Your task to perform on an android device: change keyboard looks Image 0: 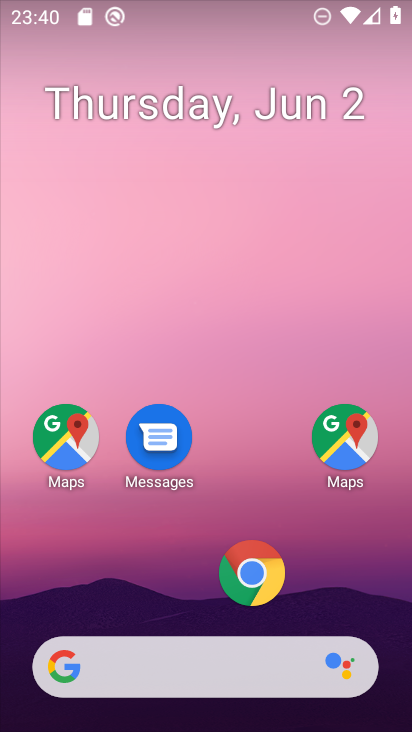
Step 0: drag from (379, 461) to (273, 20)
Your task to perform on an android device: change keyboard looks Image 1: 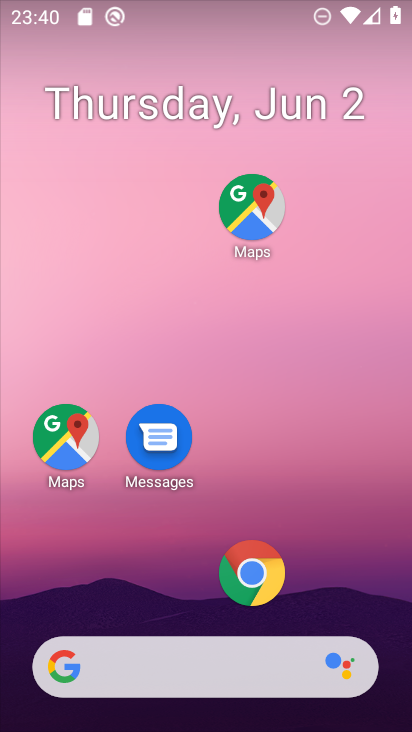
Step 1: drag from (336, 429) to (282, 85)
Your task to perform on an android device: change keyboard looks Image 2: 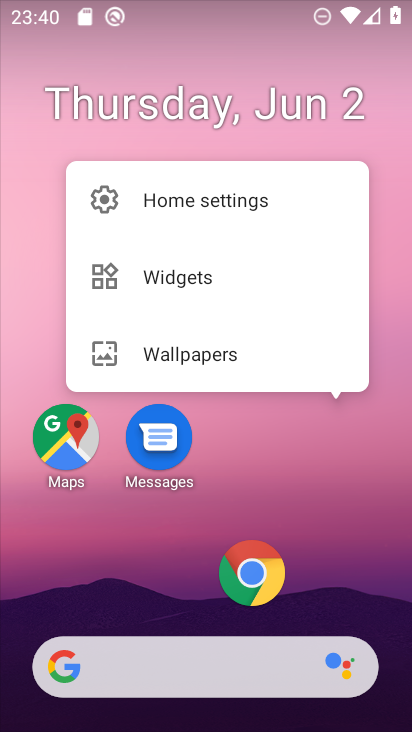
Step 2: press home button
Your task to perform on an android device: change keyboard looks Image 3: 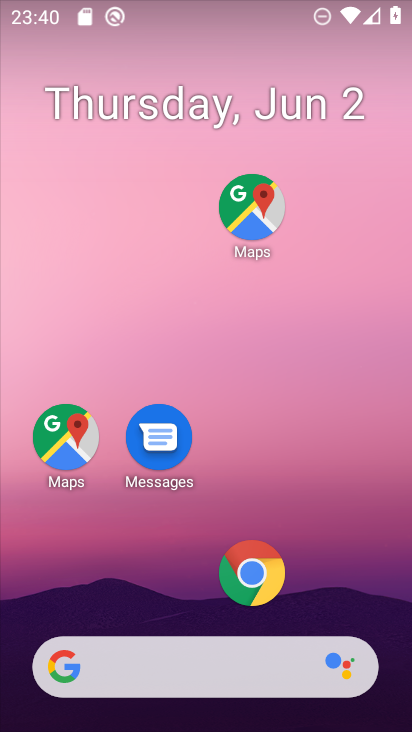
Step 3: click (312, 350)
Your task to perform on an android device: change keyboard looks Image 4: 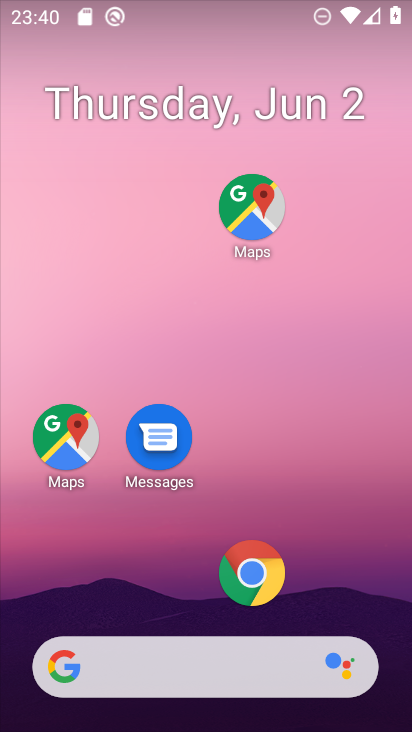
Step 4: drag from (338, 581) to (349, 171)
Your task to perform on an android device: change keyboard looks Image 5: 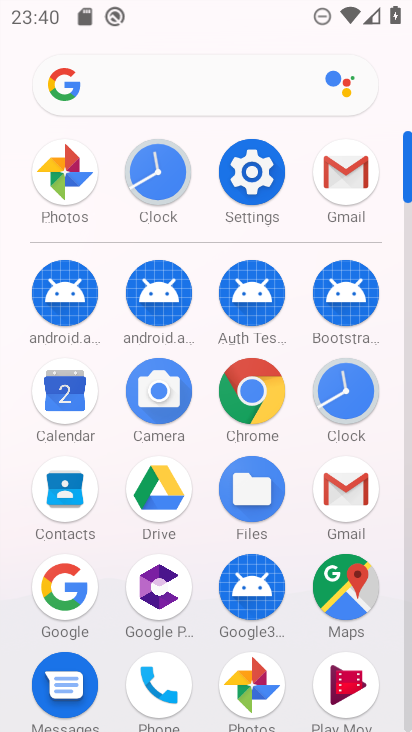
Step 5: click (242, 161)
Your task to perform on an android device: change keyboard looks Image 6: 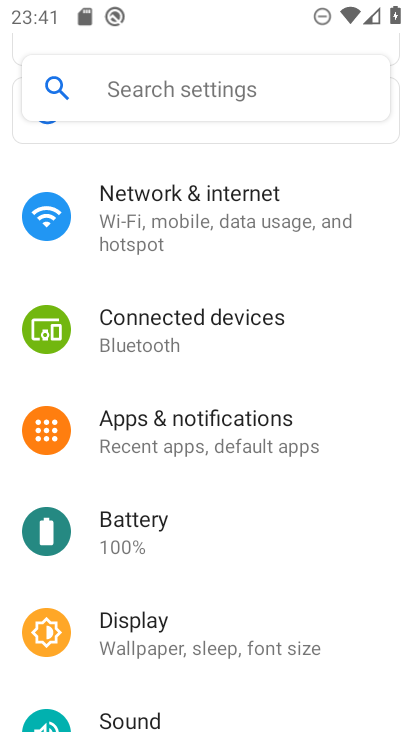
Step 6: click (339, 186)
Your task to perform on an android device: change keyboard looks Image 7: 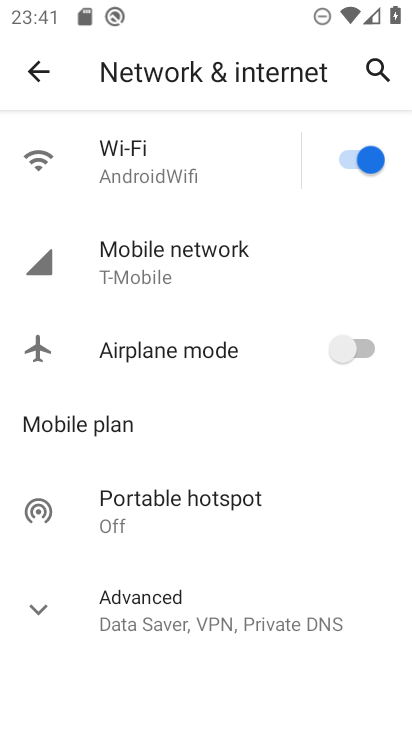
Step 7: task complete